Your task to perform on an android device: Open maps Image 0: 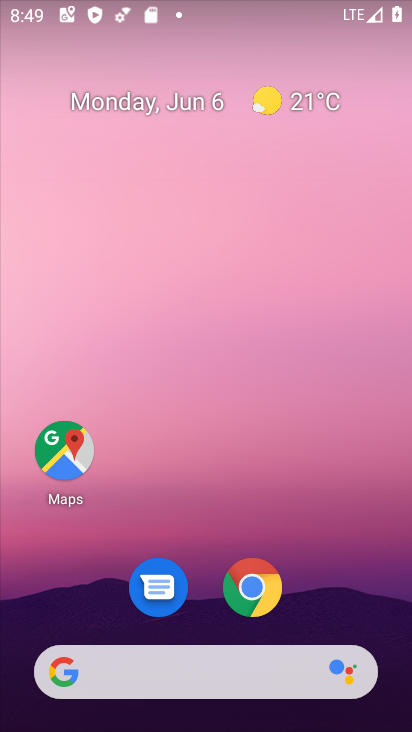
Step 0: click (44, 464)
Your task to perform on an android device: Open maps Image 1: 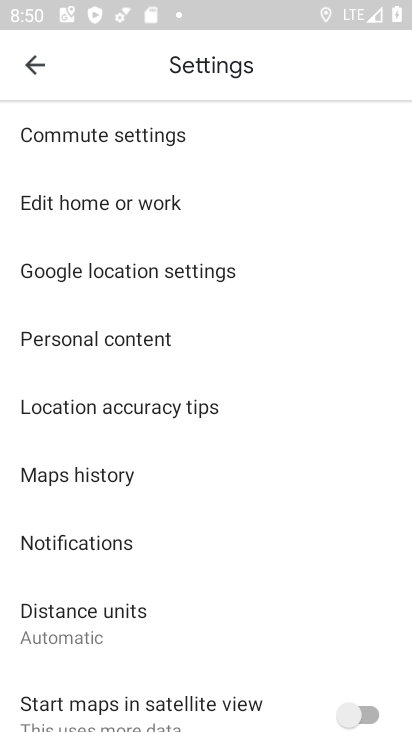
Step 1: click (22, 56)
Your task to perform on an android device: Open maps Image 2: 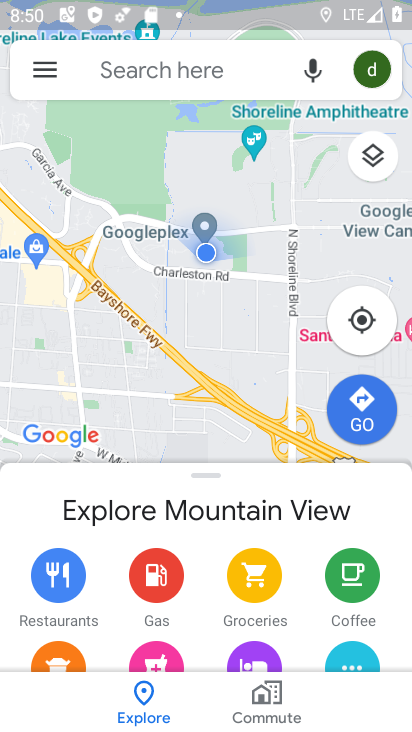
Step 2: task complete